Your task to perform on an android device: What is the recent news? Image 0: 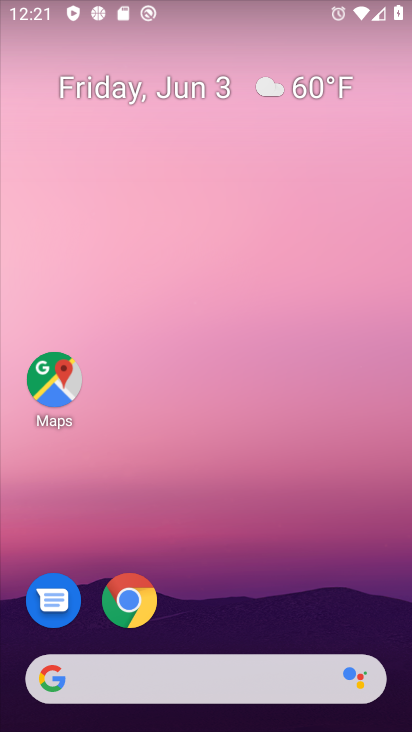
Step 0: drag from (285, 384) to (236, 112)
Your task to perform on an android device: What is the recent news? Image 1: 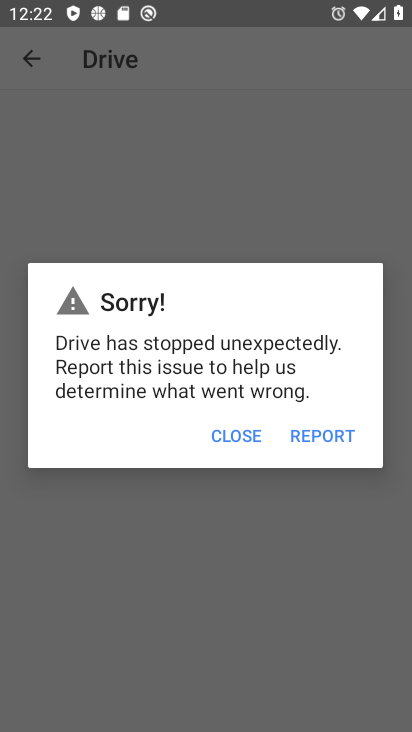
Step 1: press home button
Your task to perform on an android device: What is the recent news? Image 2: 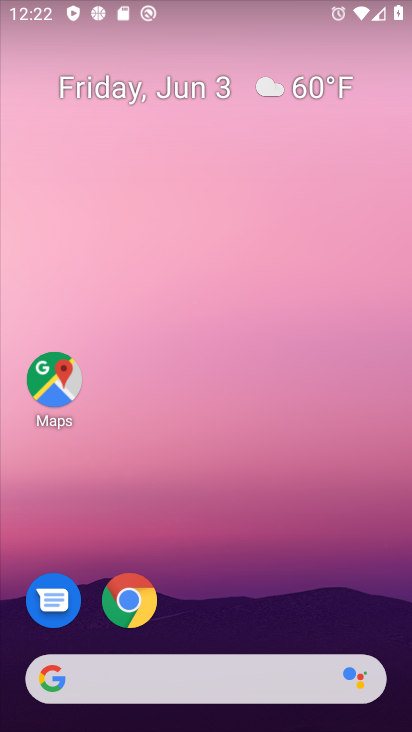
Step 2: click (127, 601)
Your task to perform on an android device: What is the recent news? Image 3: 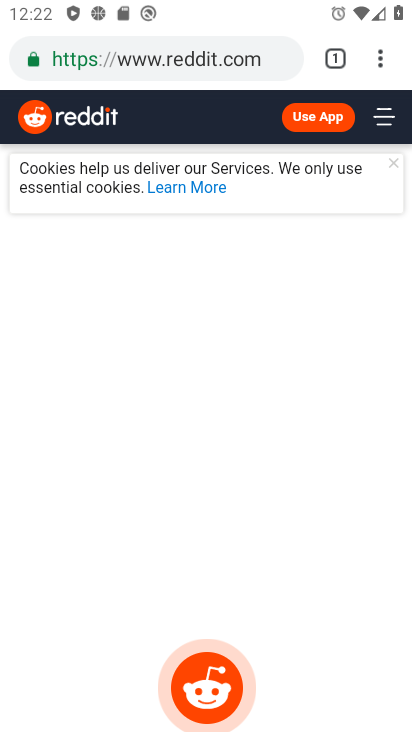
Step 3: click (157, 58)
Your task to perform on an android device: What is the recent news? Image 4: 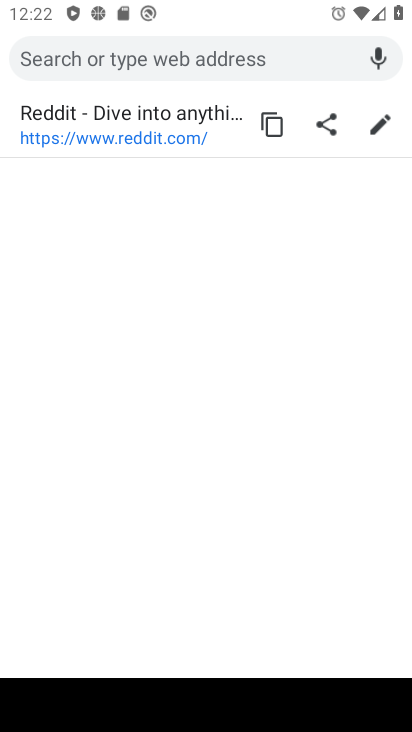
Step 4: type "news"
Your task to perform on an android device: What is the recent news? Image 5: 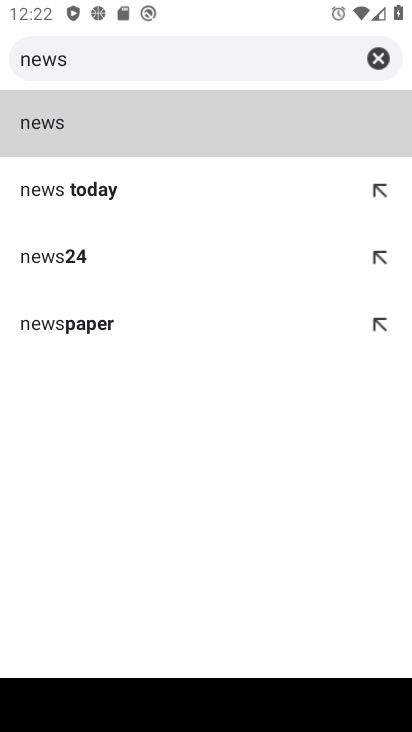
Step 5: click (47, 134)
Your task to perform on an android device: What is the recent news? Image 6: 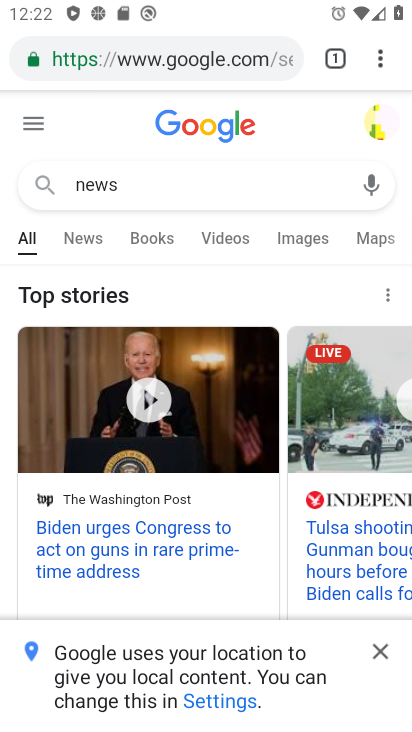
Step 6: click (88, 244)
Your task to perform on an android device: What is the recent news? Image 7: 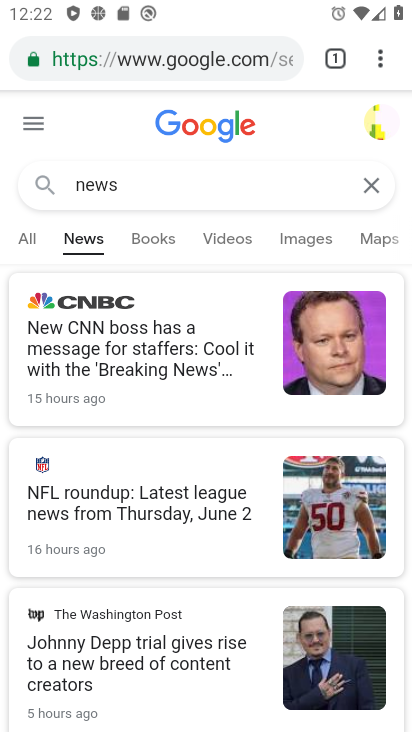
Step 7: task complete